Your task to perform on an android device: change keyboard looks Image 0: 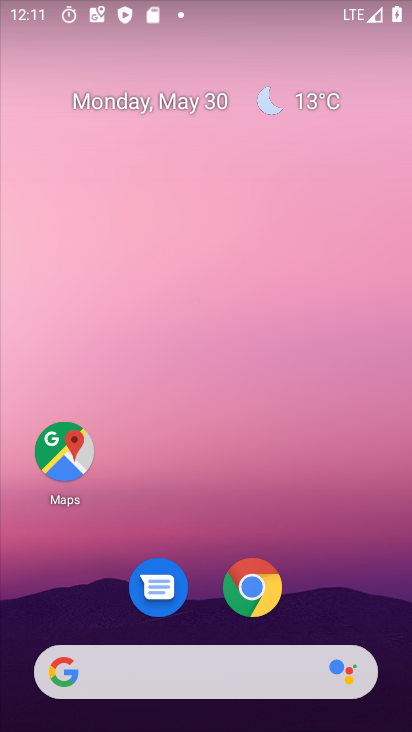
Step 0: drag from (357, 566) to (308, 106)
Your task to perform on an android device: change keyboard looks Image 1: 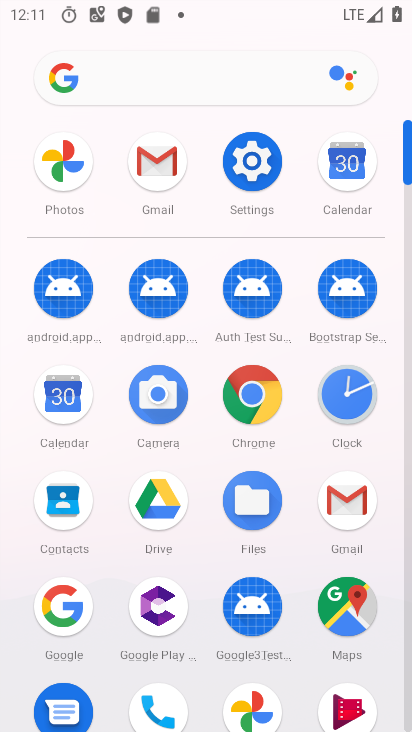
Step 1: click (232, 158)
Your task to perform on an android device: change keyboard looks Image 2: 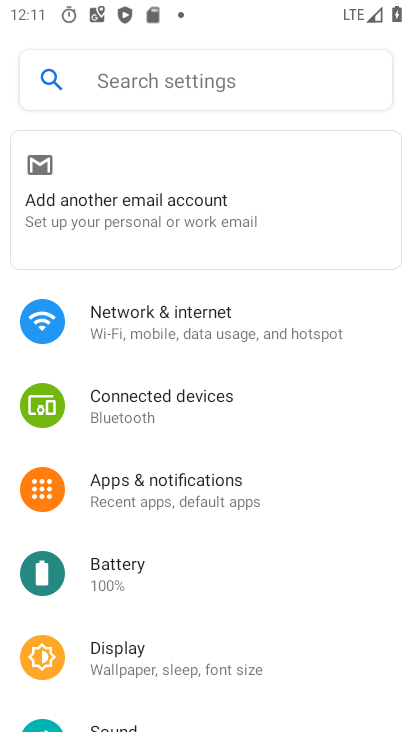
Step 2: drag from (173, 631) to (225, 118)
Your task to perform on an android device: change keyboard looks Image 3: 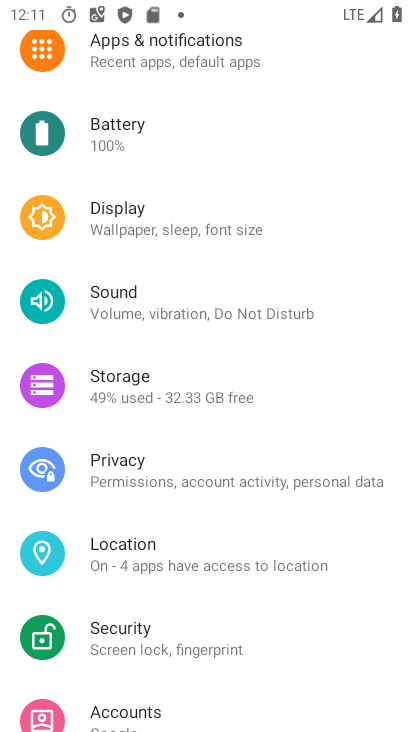
Step 3: drag from (222, 589) to (268, 86)
Your task to perform on an android device: change keyboard looks Image 4: 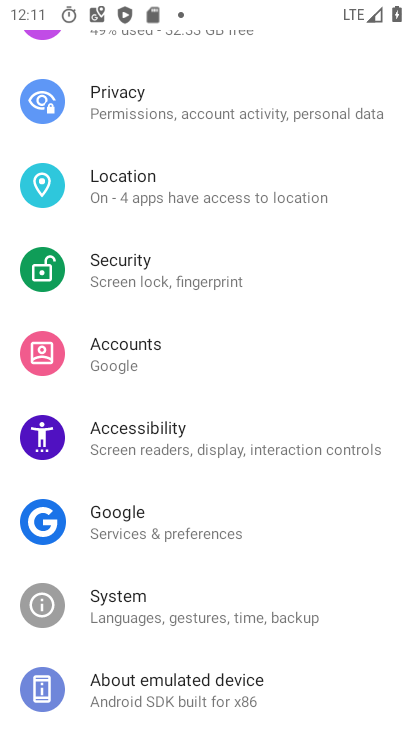
Step 4: click (174, 611)
Your task to perform on an android device: change keyboard looks Image 5: 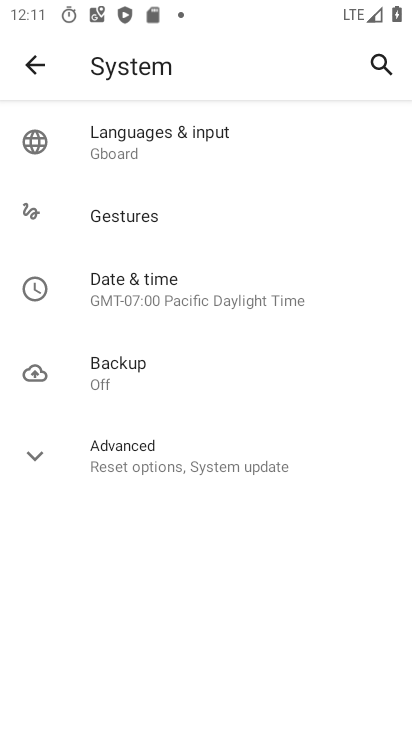
Step 5: click (137, 146)
Your task to perform on an android device: change keyboard looks Image 6: 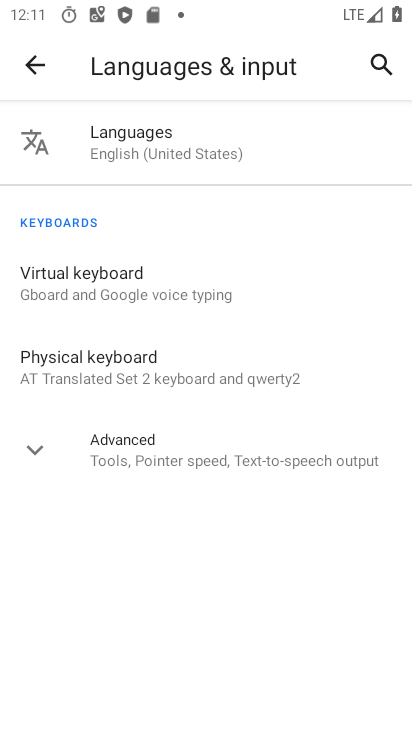
Step 6: click (151, 287)
Your task to perform on an android device: change keyboard looks Image 7: 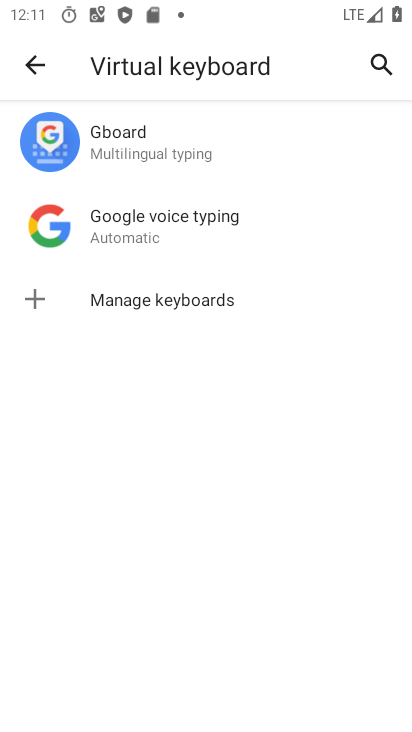
Step 7: click (157, 147)
Your task to perform on an android device: change keyboard looks Image 8: 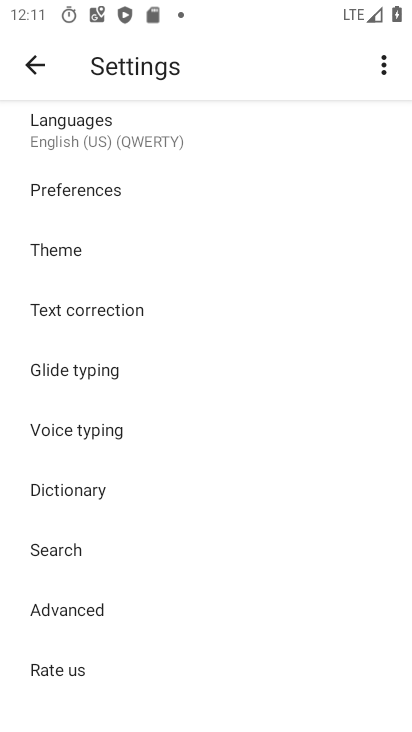
Step 8: click (92, 242)
Your task to perform on an android device: change keyboard looks Image 9: 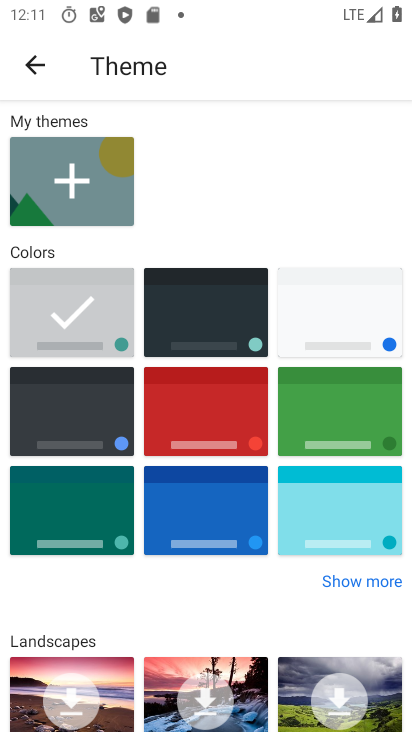
Step 9: click (383, 284)
Your task to perform on an android device: change keyboard looks Image 10: 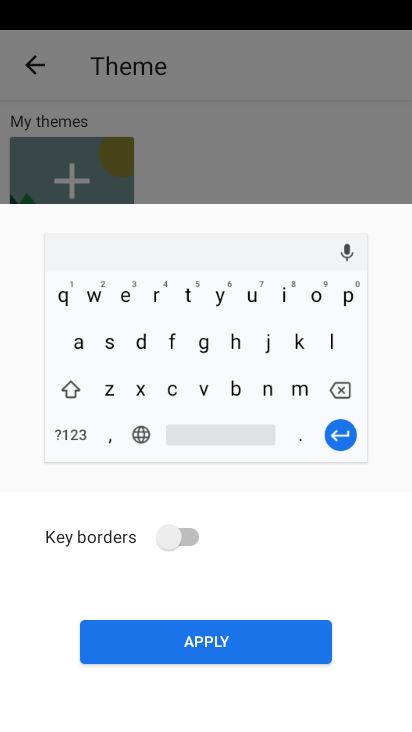
Step 10: click (259, 627)
Your task to perform on an android device: change keyboard looks Image 11: 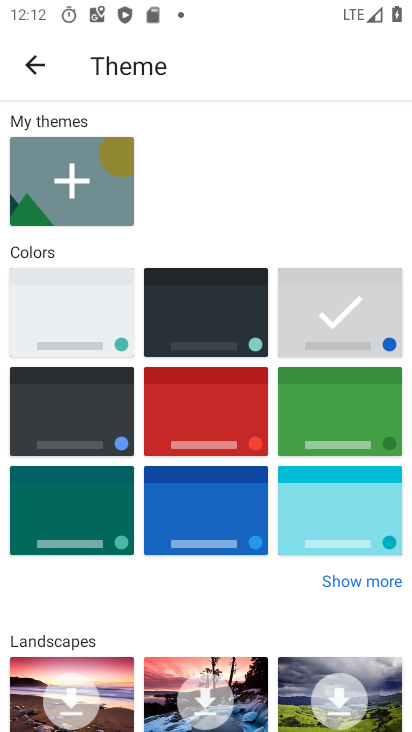
Step 11: task complete